Your task to perform on an android device: toggle wifi Image 0: 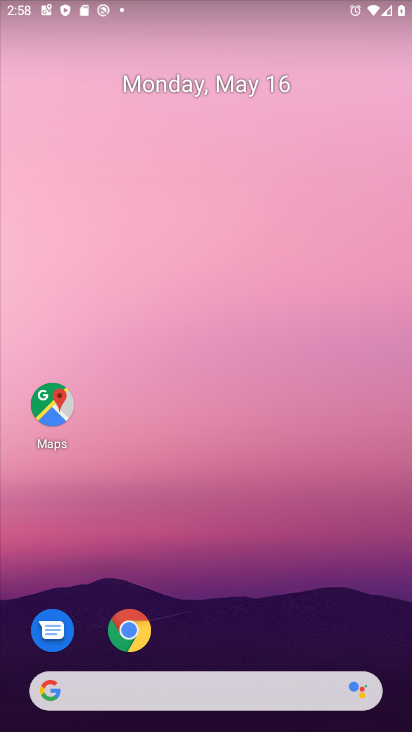
Step 0: press home button
Your task to perform on an android device: toggle wifi Image 1: 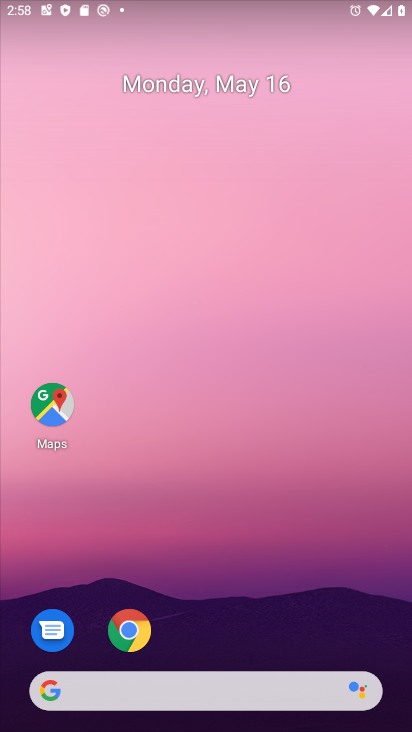
Step 1: drag from (223, 484) to (227, 48)
Your task to perform on an android device: toggle wifi Image 2: 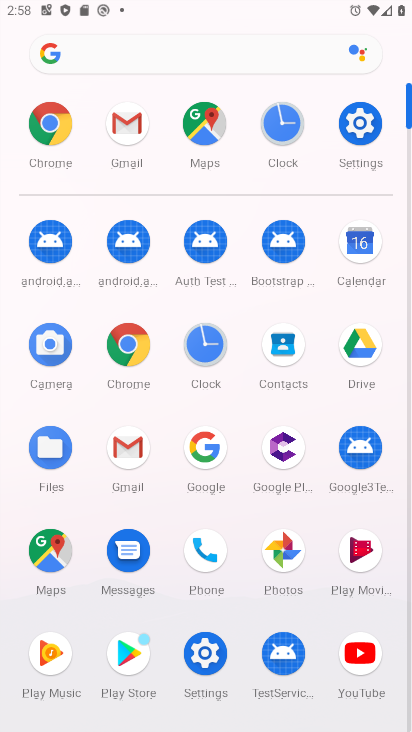
Step 2: click (365, 117)
Your task to perform on an android device: toggle wifi Image 3: 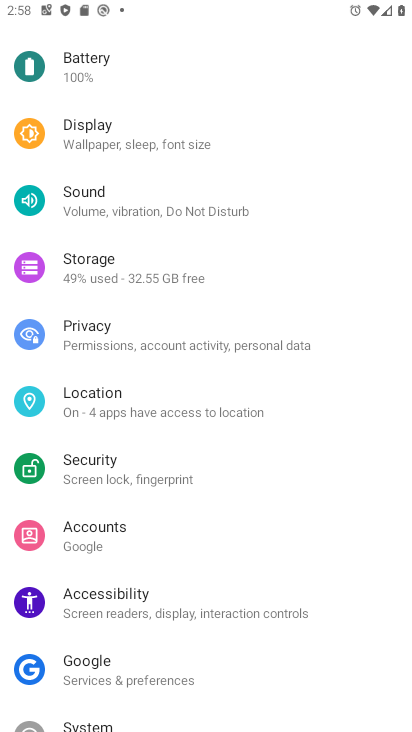
Step 3: drag from (169, 147) to (199, 635)
Your task to perform on an android device: toggle wifi Image 4: 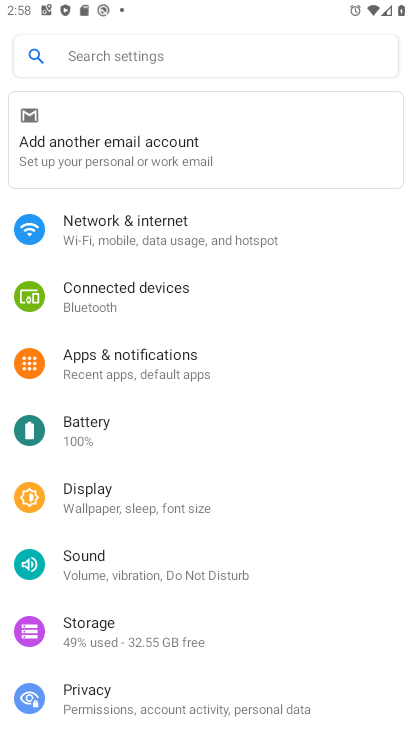
Step 4: click (169, 229)
Your task to perform on an android device: toggle wifi Image 5: 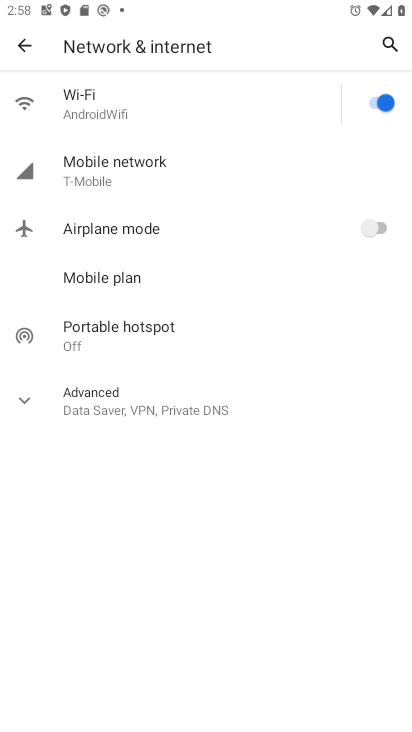
Step 5: click (159, 94)
Your task to perform on an android device: toggle wifi Image 6: 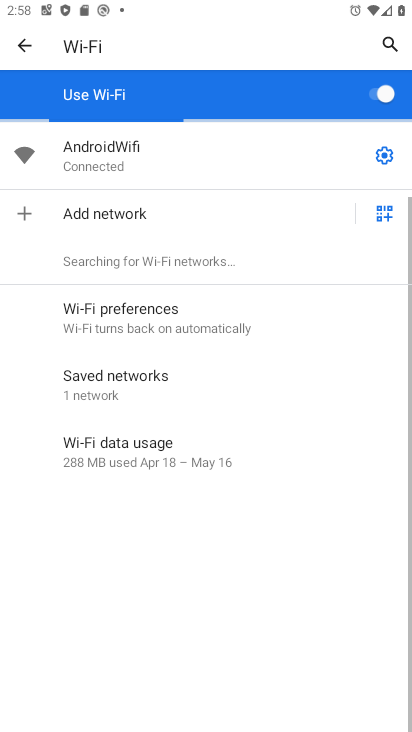
Step 6: click (153, 105)
Your task to perform on an android device: toggle wifi Image 7: 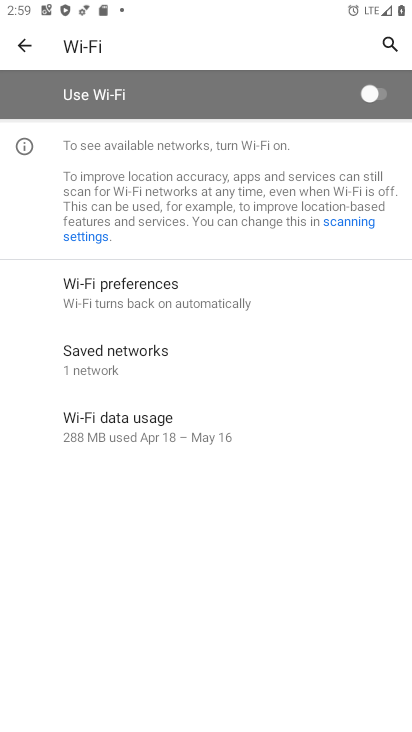
Step 7: task complete